Your task to perform on an android device: Turn on the flashlight Image 0: 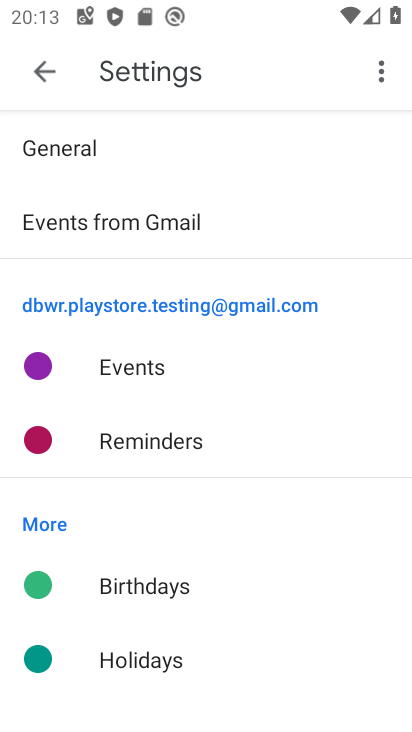
Step 0: press home button
Your task to perform on an android device: Turn on the flashlight Image 1: 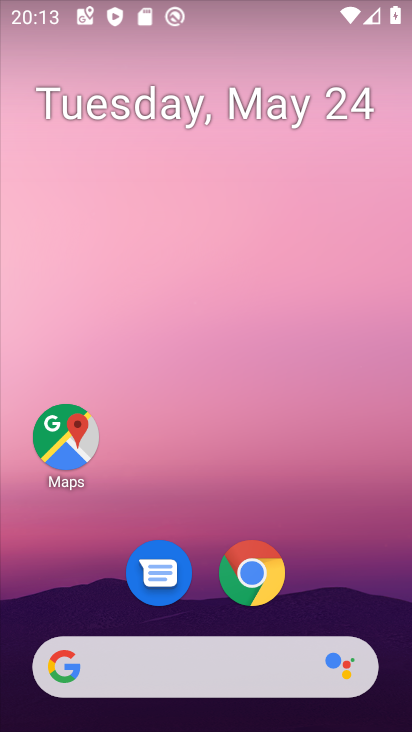
Step 1: drag from (196, 613) to (243, 59)
Your task to perform on an android device: Turn on the flashlight Image 2: 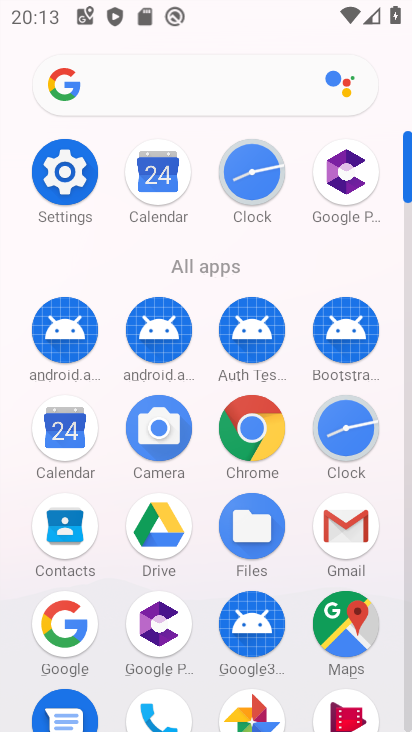
Step 2: click (71, 166)
Your task to perform on an android device: Turn on the flashlight Image 3: 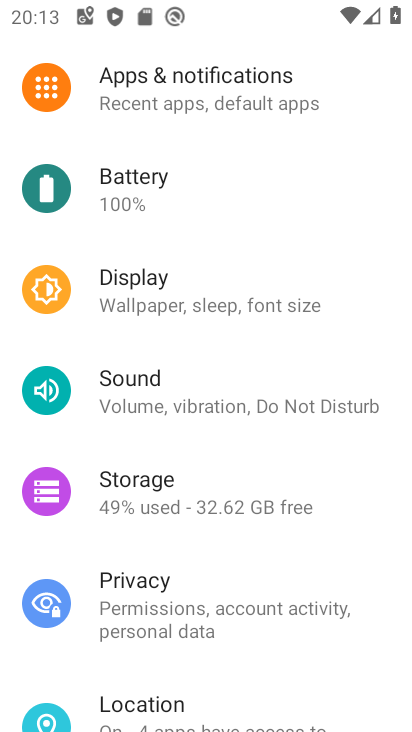
Step 3: task complete